Your task to perform on an android device: change timer sound Image 0: 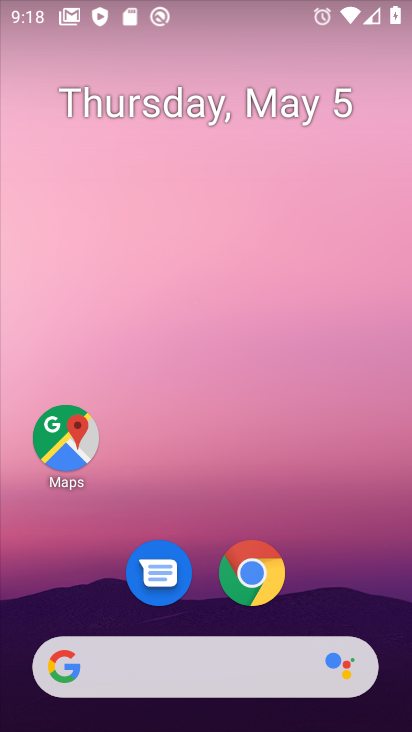
Step 0: drag from (172, 600) to (276, 71)
Your task to perform on an android device: change timer sound Image 1: 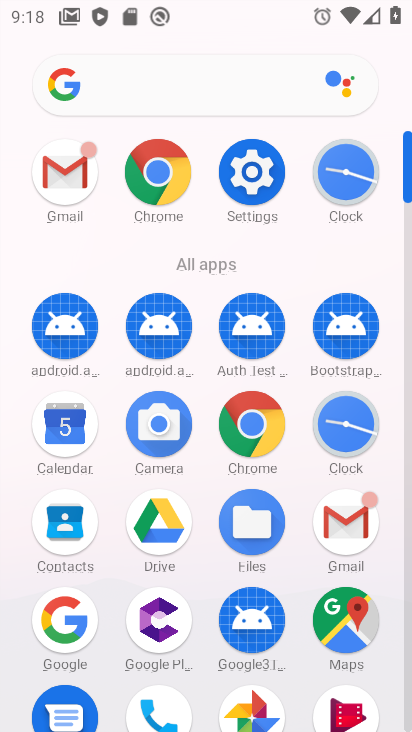
Step 1: click (337, 427)
Your task to perform on an android device: change timer sound Image 2: 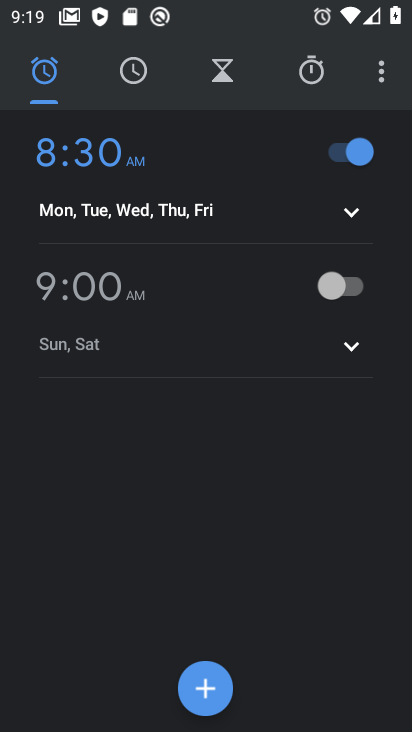
Step 2: click (381, 70)
Your task to perform on an android device: change timer sound Image 3: 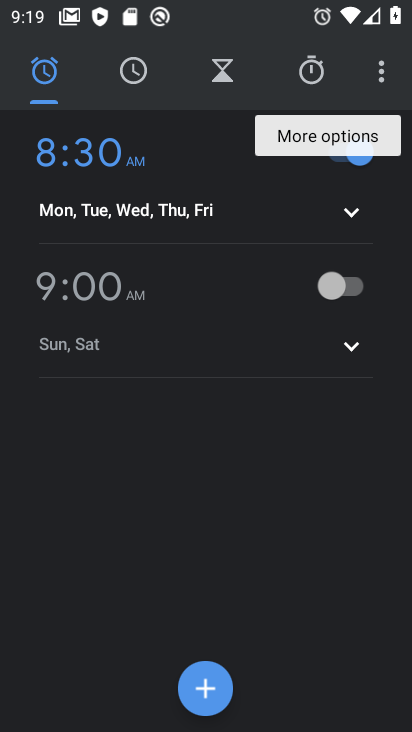
Step 3: click (376, 71)
Your task to perform on an android device: change timer sound Image 4: 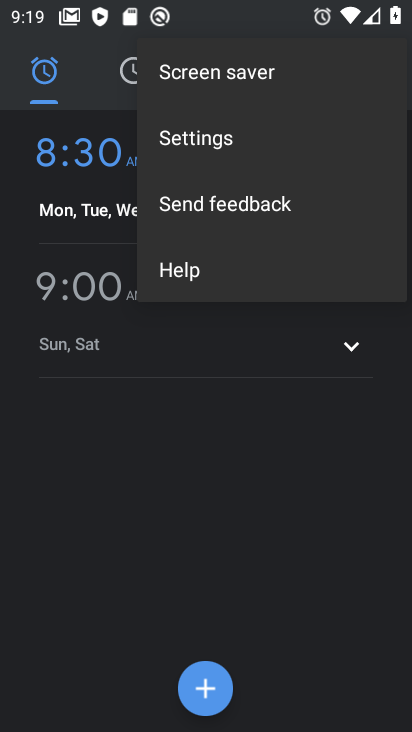
Step 4: click (220, 138)
Your task to perform on an android device: change timer sound Image 5: 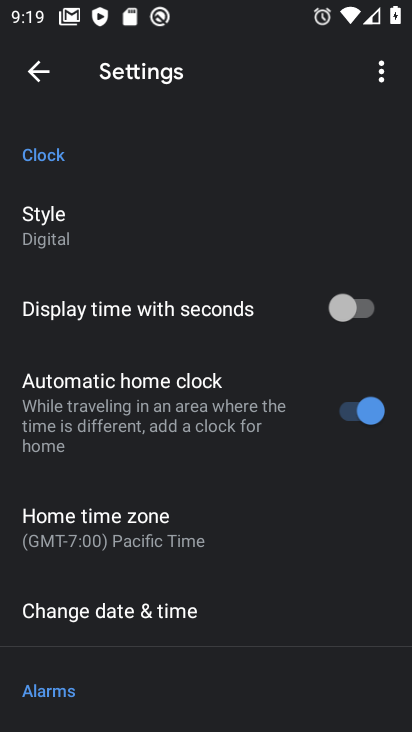
Step 5: drag from (158, 612) to (284, 97)
Your task to perform on an android device: change timer sound Image 6: 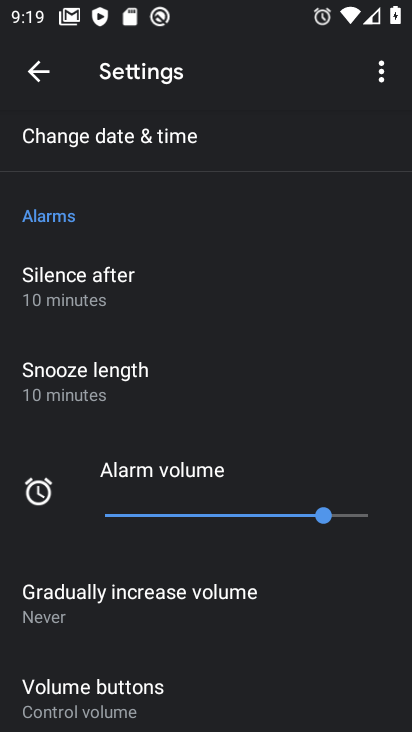
Step 6: drag from (178, 244) to (240, 169)
Your task to perform on an android device: change timer sound Image 7: 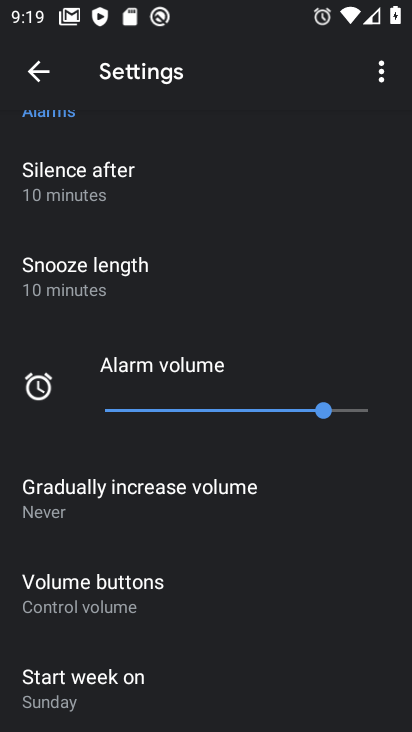
Step 7: drag from (169, 641) to (280, 222)
Your task to perform on an android device: change timer sound Image 8: 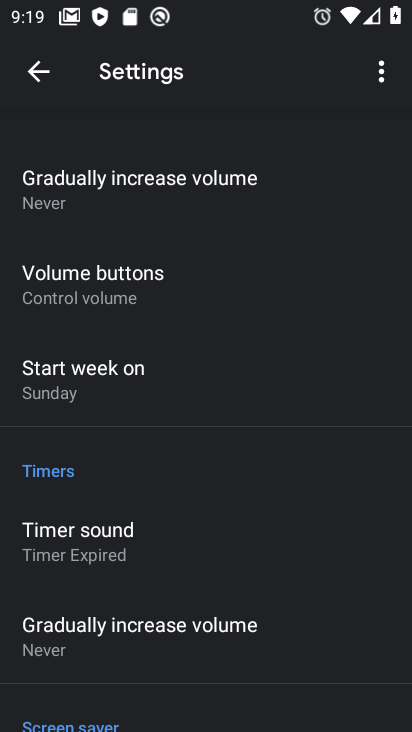
Step 8: click (78, 546)
Your task to perform on an android device: change timer sound Image 9: 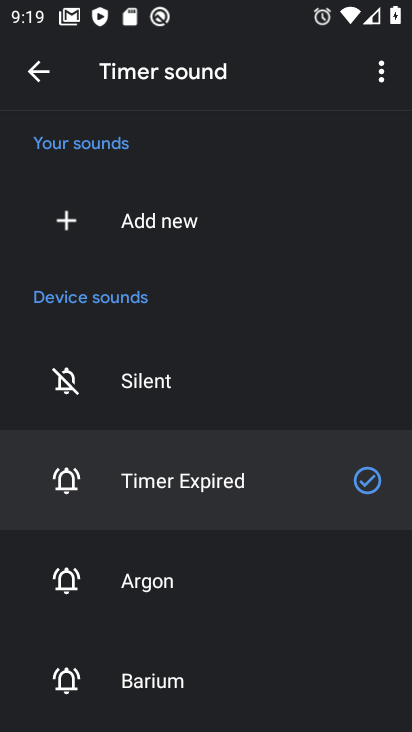
Step 9: click (167, 589)
Your task to perform on an android device: change timer sound Image 10: 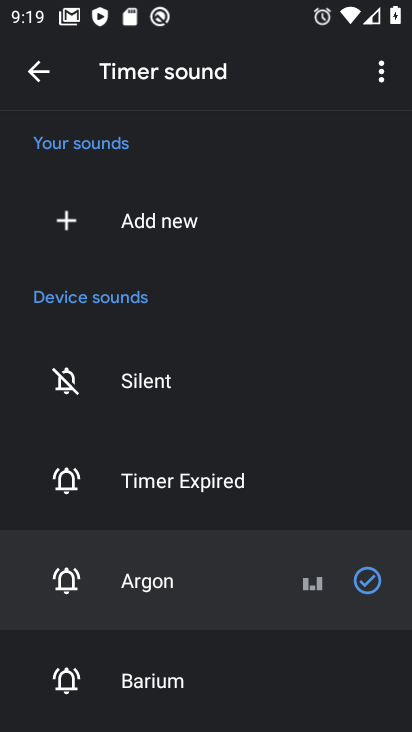
Step 10: task complete